Your task to perform on an android device: Search for pizza restaurants on Maps Image 0: 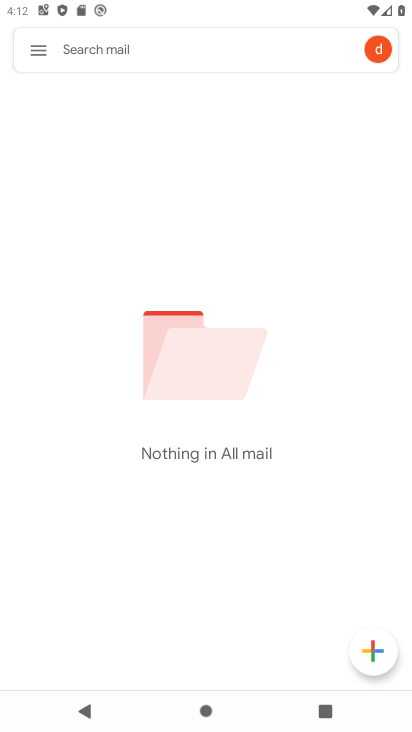
Step 0: click (288, 599)
Your task to perform on an android device: Search for pizza restaurants on Maps Image 1: 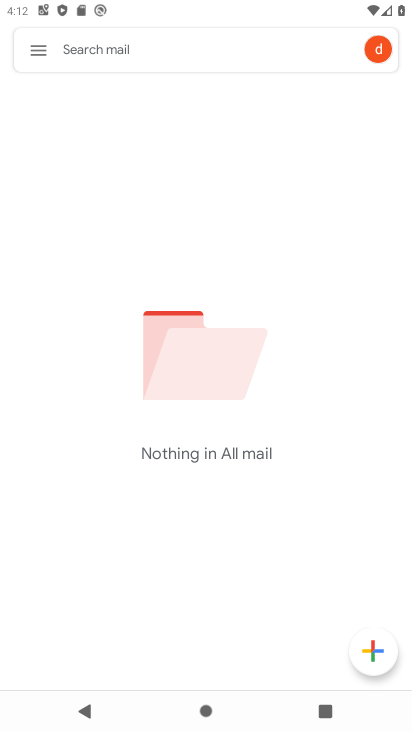
Step 1: press home button
Your task to perform on an android device: Search for pizza restaurants on Maps Image 2: 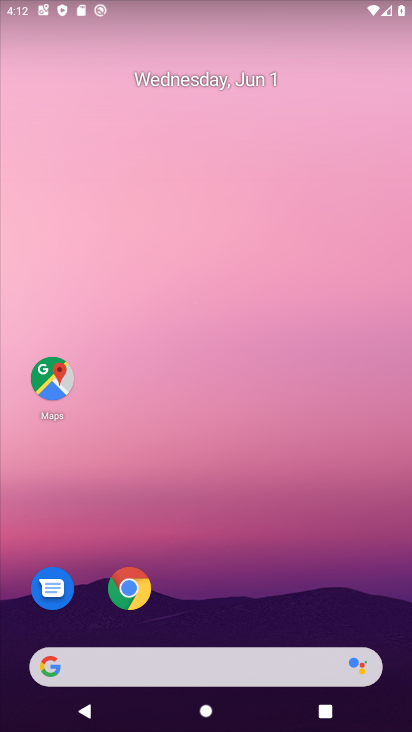
Step 2: click (56, 357)
Your task to perform on an android device: Search for pizza restaurants on Maps Image 3: 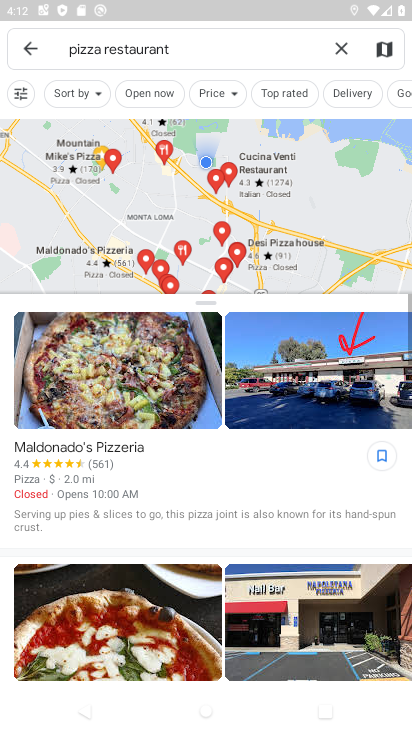
Step 3: task complete